Your task to perform on an android device: change timer sound Image 0: 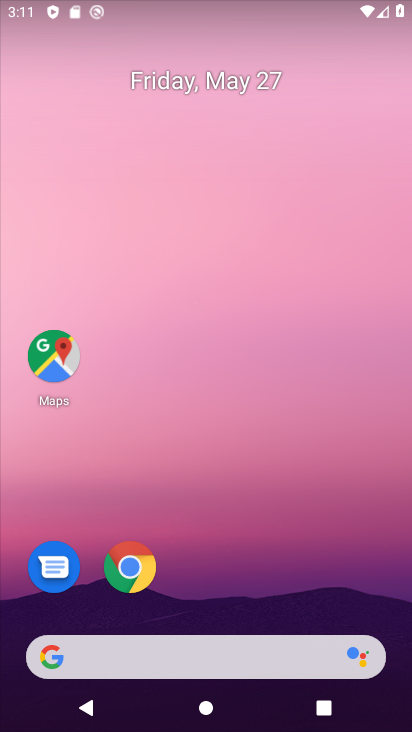
Step 0: drag from (356, 534) to (284, 156)
Your task to perform on an android device: change timer sound Image 1: 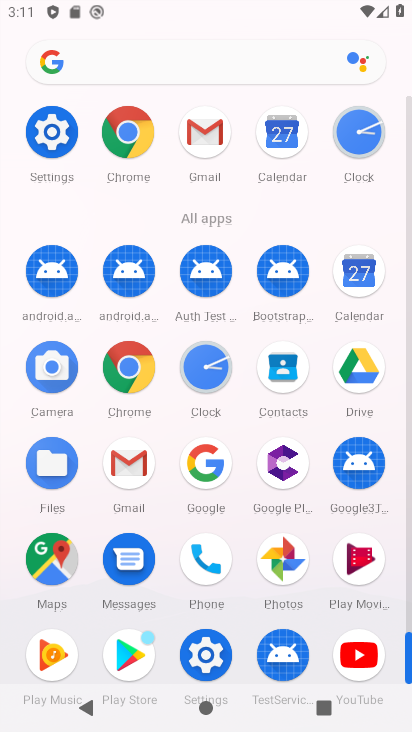
Step 1: click (203, 365)
Your task to perform on an android device: change timer sound Image 2: 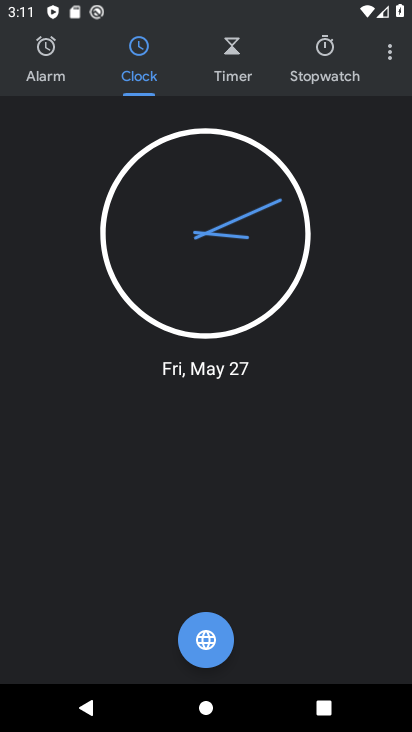
Step 2: click (389, 60)
Your task to perform on an android device: change timer sound Image 3: 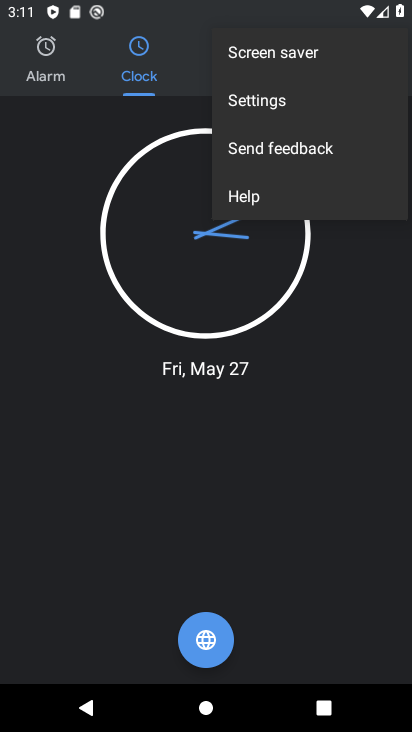
Step 3: click (259, 102)
Your task to perform on an android device: change timer sound Image 4: 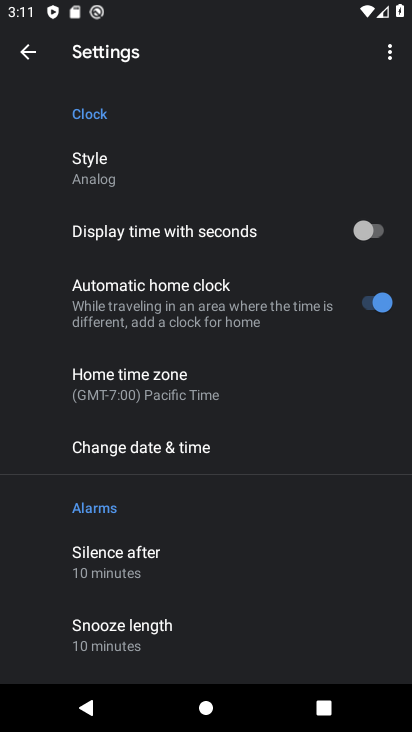
Step 4: drag from (264, 534) to (232, 230)
Your task to perform on an android device: change timer sound Image 5: 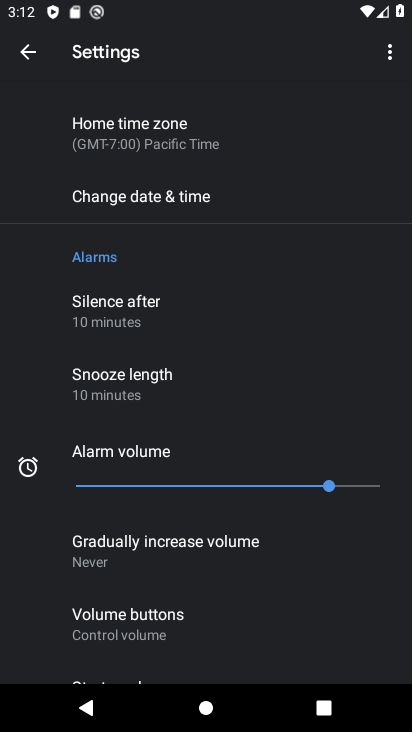
Step 5: drag from (274, 521) to (239, 192)
Your task to perform on an android device: change timer sound Image 6: 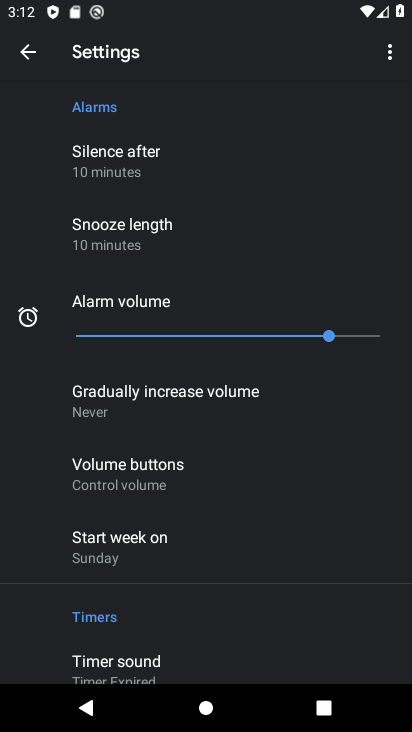
Step 6: drag from (201, 586) to (214, 283)
Your task to perform on an android device: change timer sound Image 7: 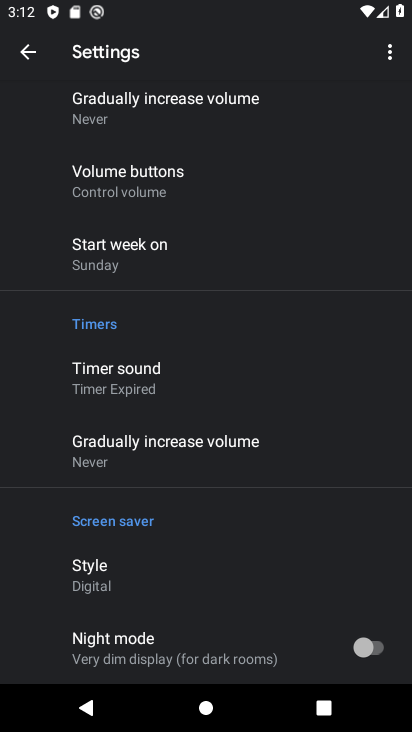
Step 7: click (109, 393)
Your task to perform on an android device: change timer sound Image 8: 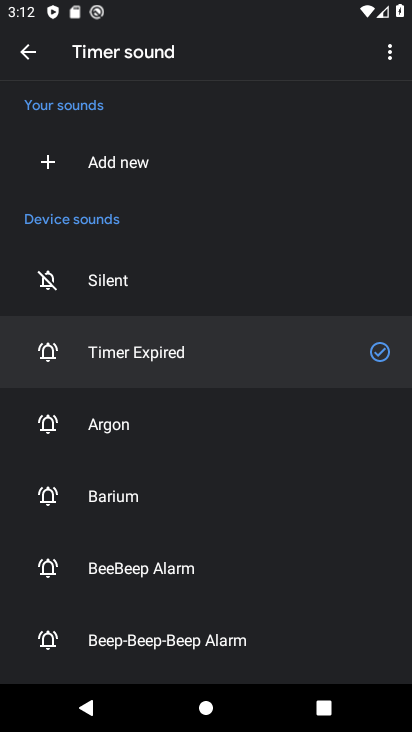
Step 8: click (168, 568)
Your task to perform on an android device: change timer sound Image 9: 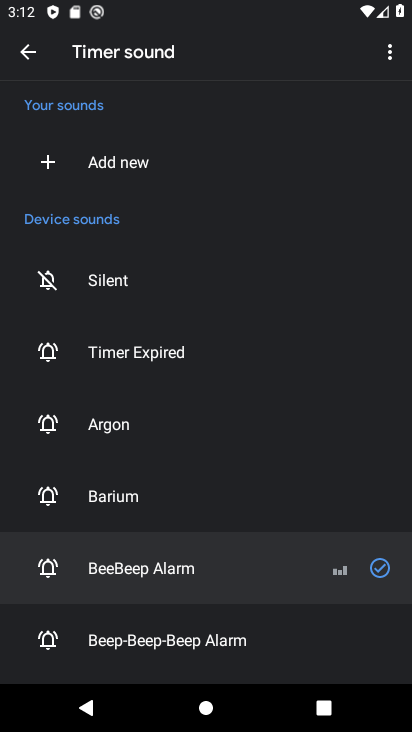
Step 9: task complete